Your task to perform on an android device: see sites visited before in the chrome app Image 0: 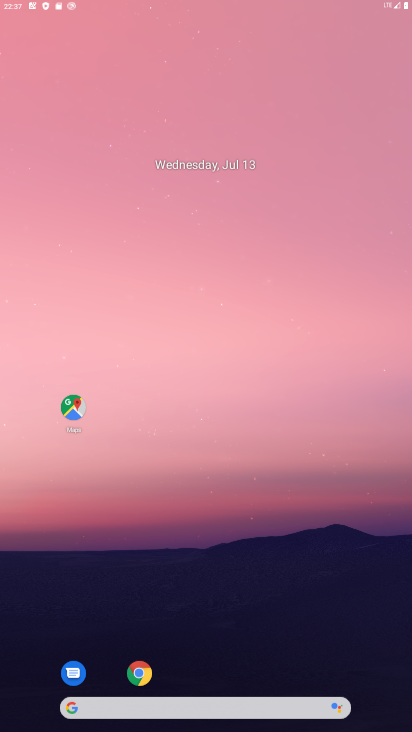
Step 0: click (229, 184)
Your task to perform on an android device: see sites visited before in the chrome app Image 1: 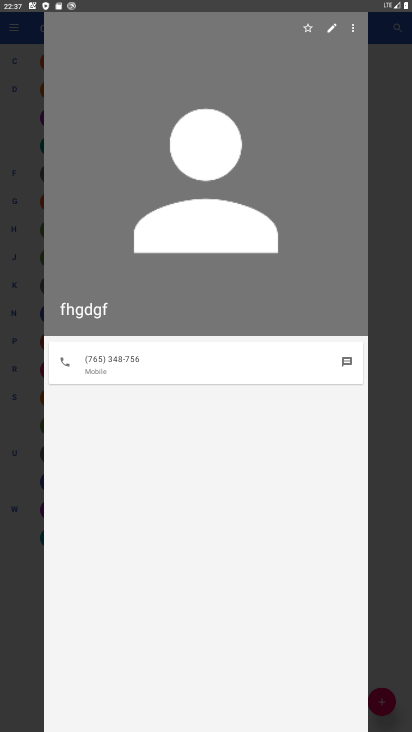
Step 1: drag from (249, 497) to (227, 282)
Your task to perform on an android device: see sites visited before in the chrome app Image 2: 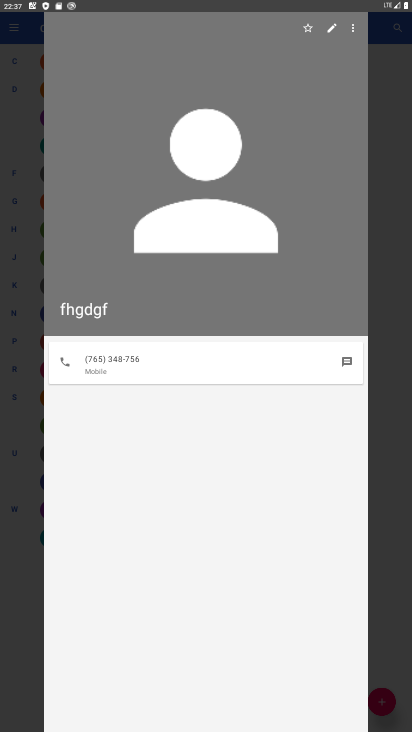
Step 2: press home button
Your task to perform on an android device: see sites visited before in the chrome app Image 3: 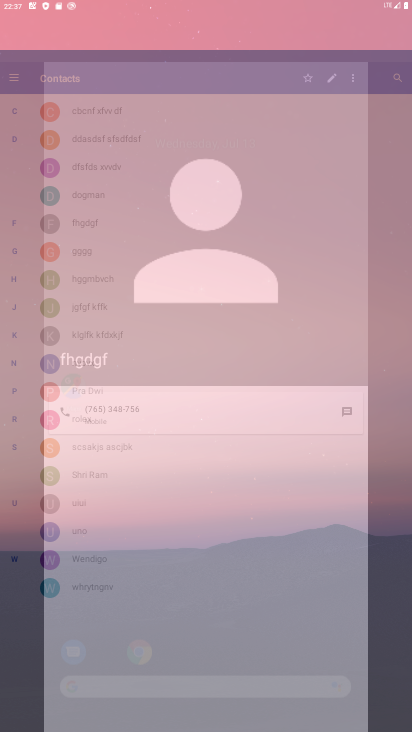
Step 3: drag from (311, 543) to (407, 216)
Your task to perform on an android device: see sites visited before in the chrome app Image 4: 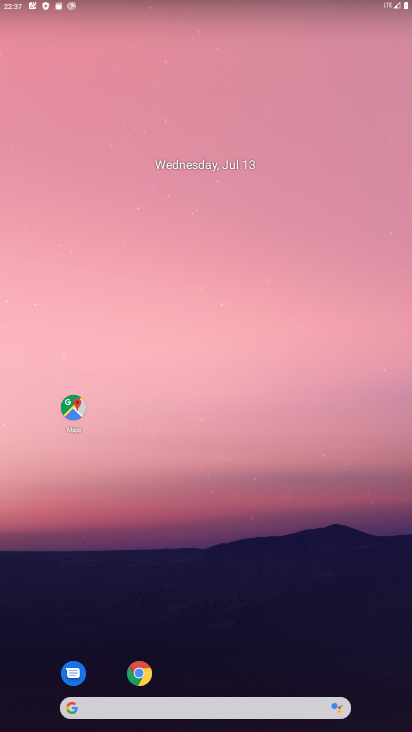
Step 4: drag from (183, 679) to (207, 66)
Your task to perform on an android device: see sites visited before in the chrome app Image 5: 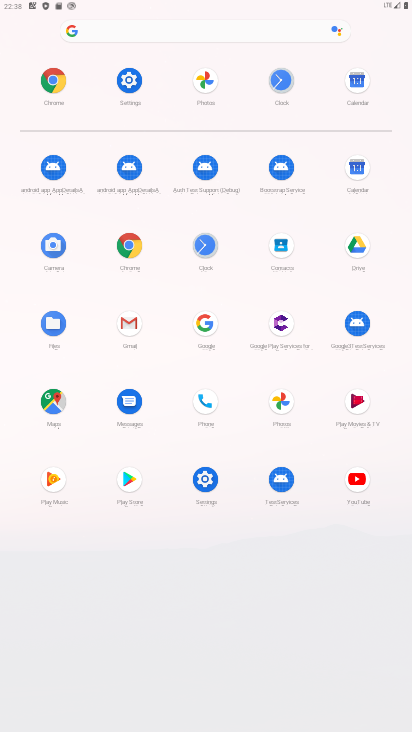
Step 5: click (129, 245)
Your task to perform on an android device: see sites visited before in the chrome app Image 6: 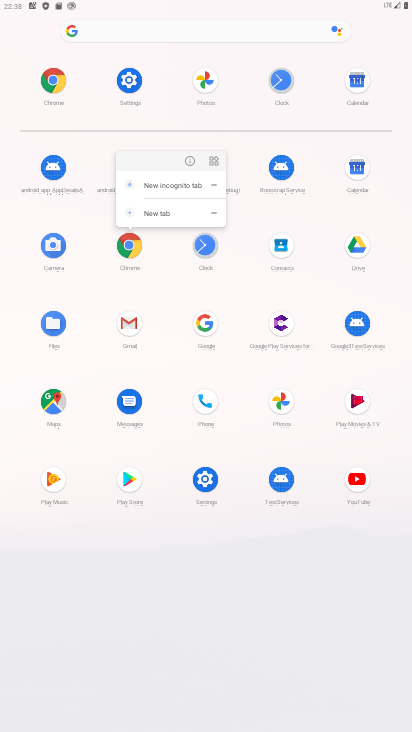
Step 6: click (192, 159)
Your task to perform on an android device: see sites visited before in the chrome app Image 7: 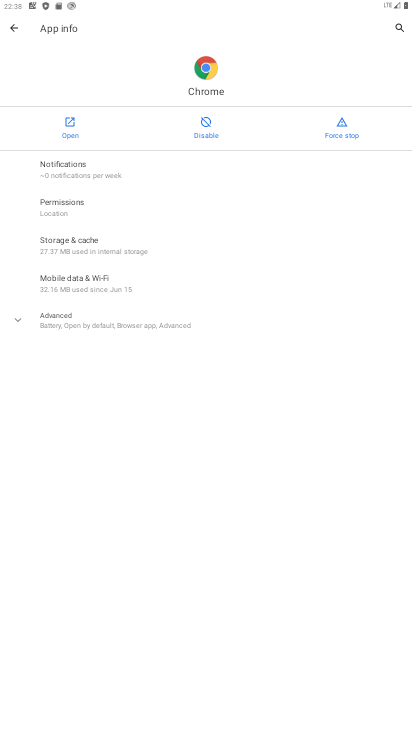
Step 7: click (65, 128)
Your task to perform on an android device: see sites visited before in the chrome app Image 8: 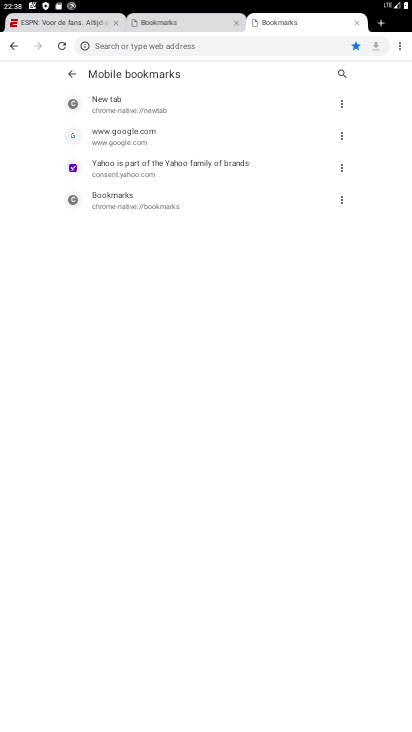
Step 8: task complete